Your task to perform on an android device: Go to Wikipedia Image 0: 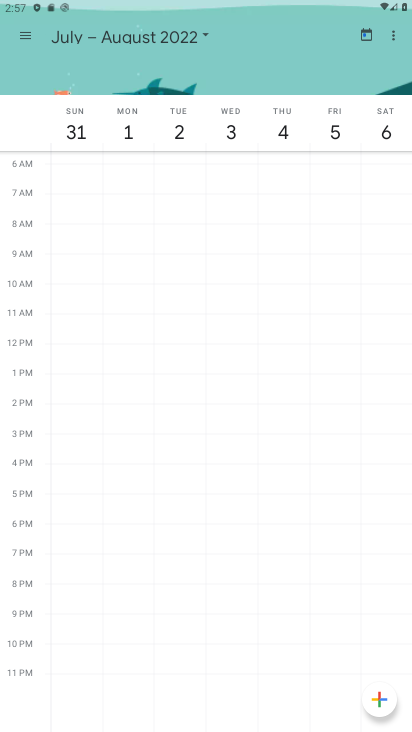
Step 0: press home button
Your task to perform on an android device: Go to Wikipedia Image 1: 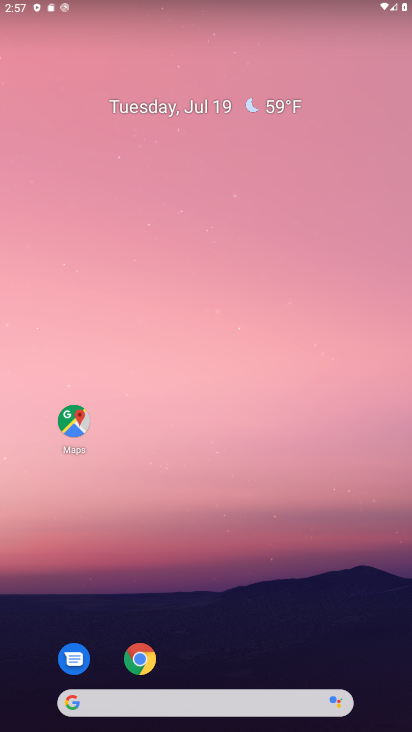
Step 1: click (141, 657)
Your task to perform on an android device: Go to Wikipedia Image 2: 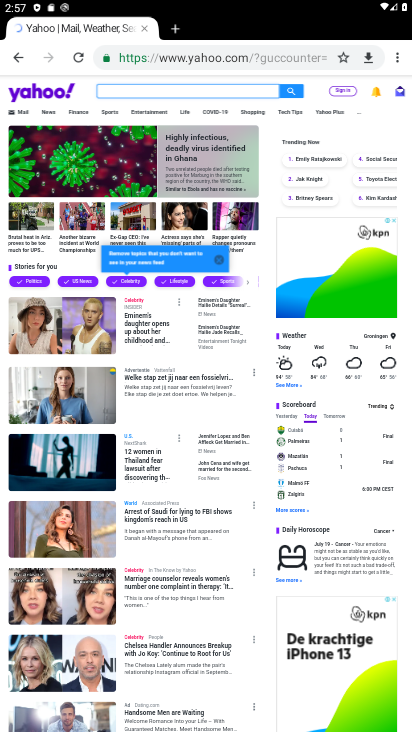
Step 2: click (285, 53)
Your task to perform on an android device: Go to Wikipedia Image 3: 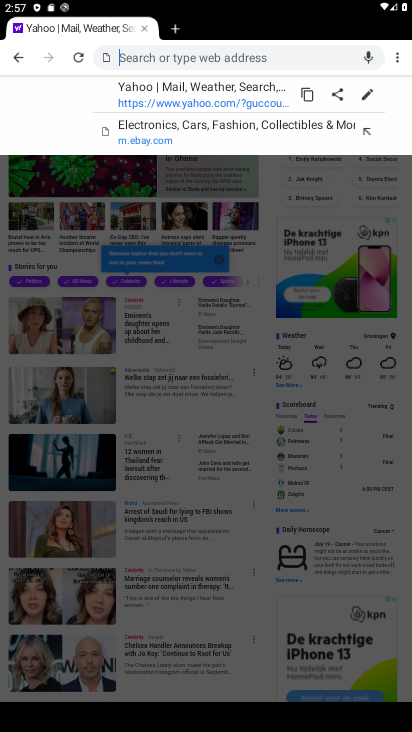
Step 3: click (278, 54)
Your task to perform on an android device: Go to Wikipedia Image 4: 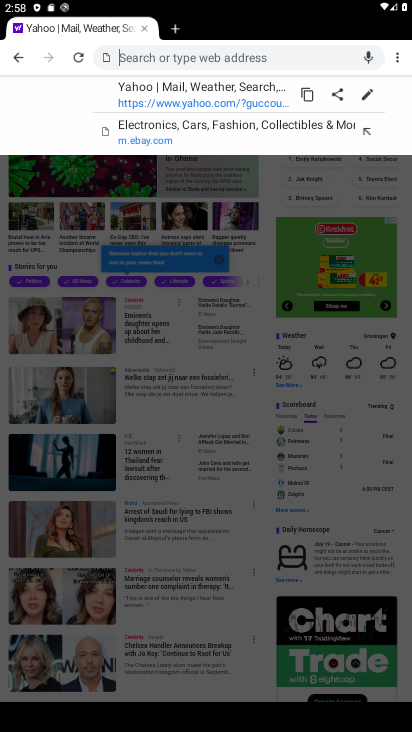
Step 4: type "Wikipedia"
Your task to perform on an android device: Go to Wikipedia Image 5: 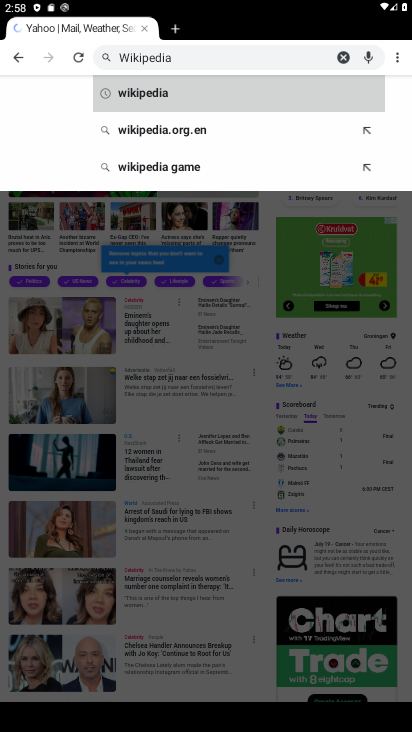
Step 5: click (158, 91)
Your task to perform on an android device: Go to Wikipedia Image 6: 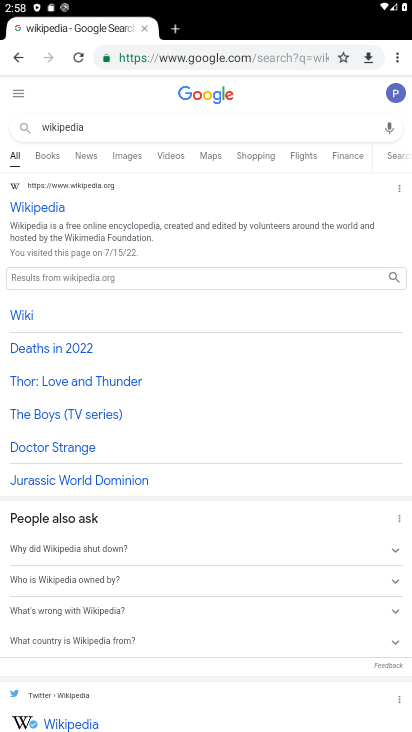
Step 6: click (60, 211)
Your task to perform on an android device: Go to Wikipedia Image 7: 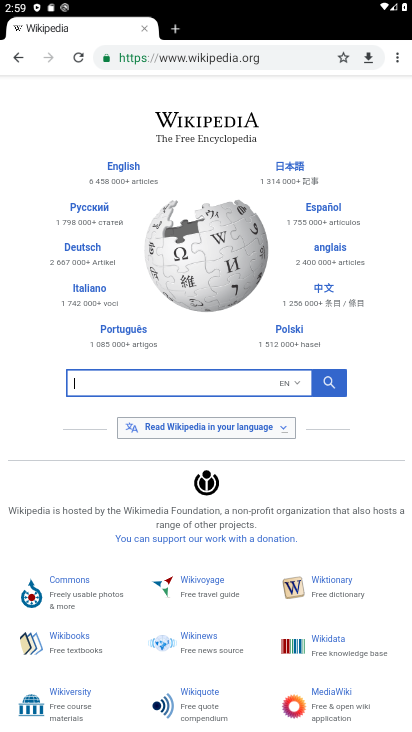
Step 7: task complete